Your task to perform on an android device: Search for sushi restaurants on Maps Image 0: 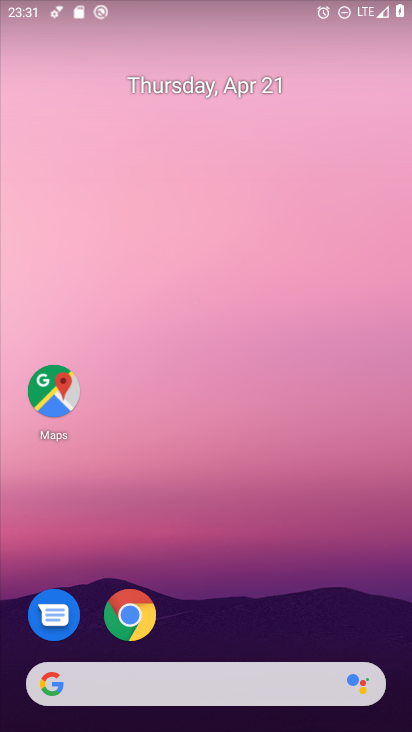
Step 0: click (51, 384)
Your task to perform on an android device: Search for sushi restaurants on Maps Image 1: 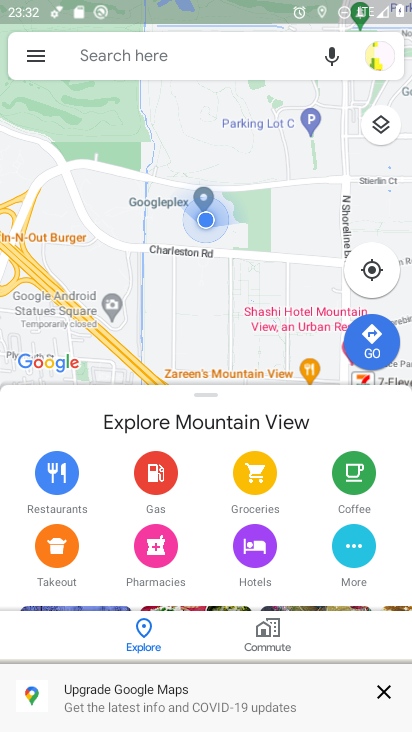
Step 1: click (144, 49)
Your task to perform on an android device: Search for sushi restaurants on Maps Image 2: 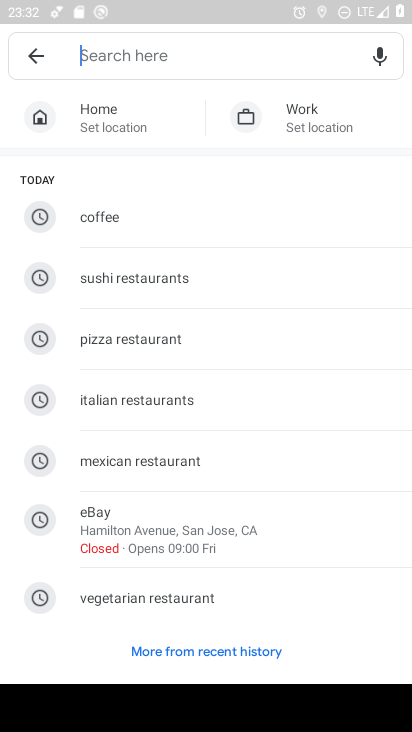
Step 2: click (115, 287)
Your task to perform on an android device: Search for sushi restaurants on Maps Image 3: 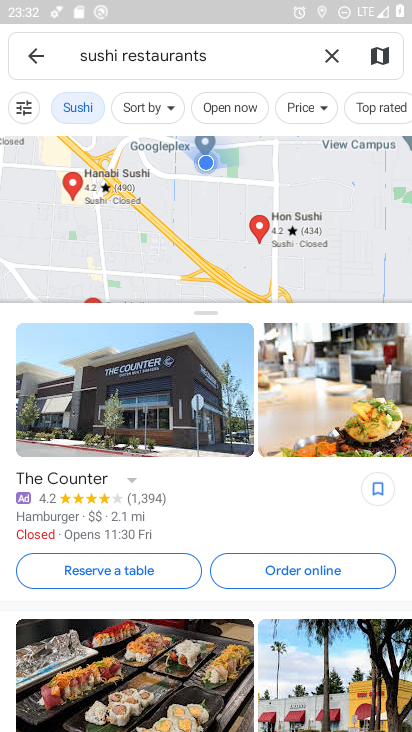
Step 3: task complete